Your task to perform on an android device: See recent photos Image 0: 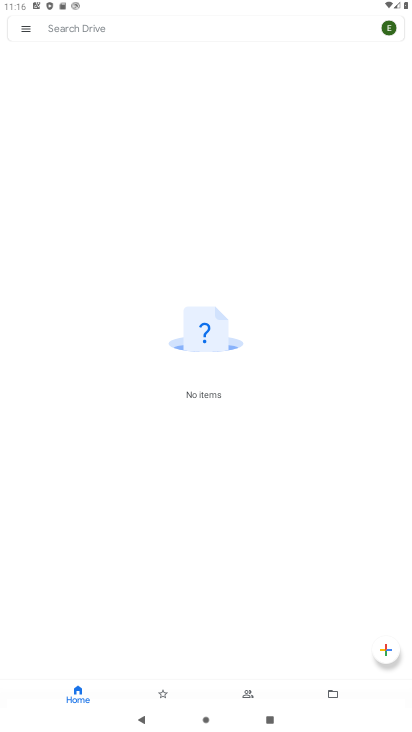
Step 0: press home button
Your task to perform on an android device: See recent photos Image 1: 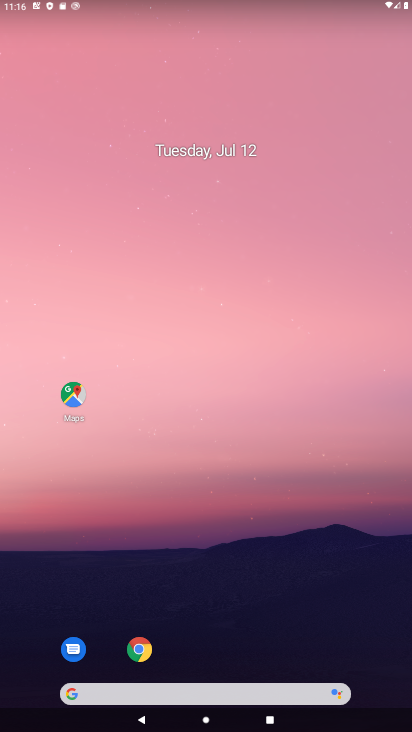
Step 1: drag from (349, 462) to (314, 70)
Your task to perform on an android device: See recent photos Image 2: 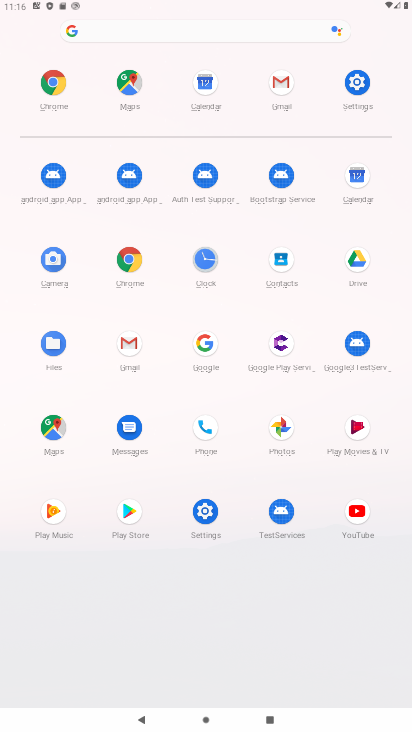
Step 2: click (282, 426)
Your task to perform on an android device: See recent photos Image 3: 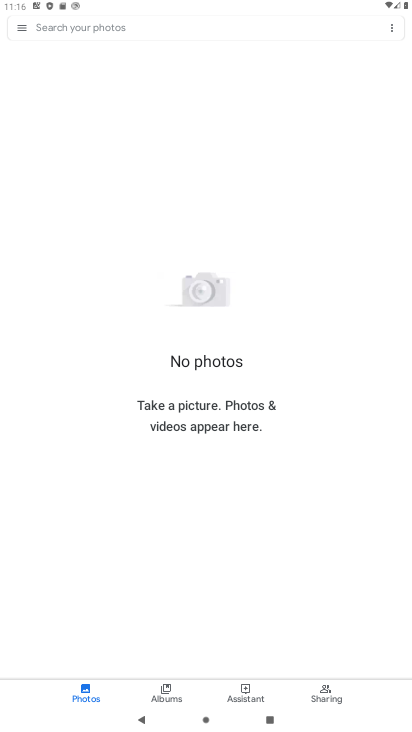
Step 3: task complete